Your task to perform on an android device: turn off translation in the chrome app Image 0: 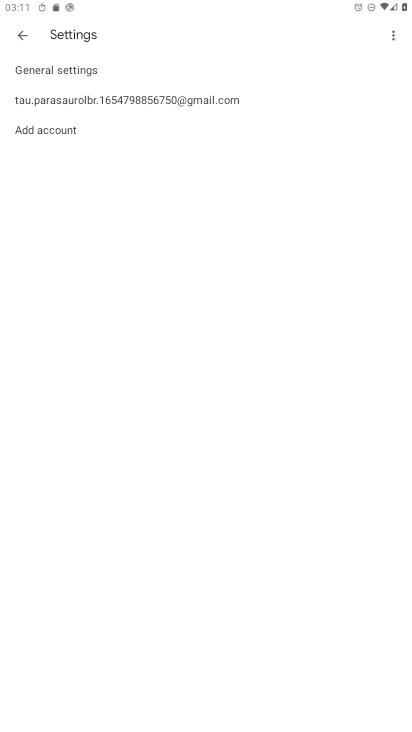
Step 0: press home button
Your task to perform on an android device: turn off translation in the chrome app Image 1: 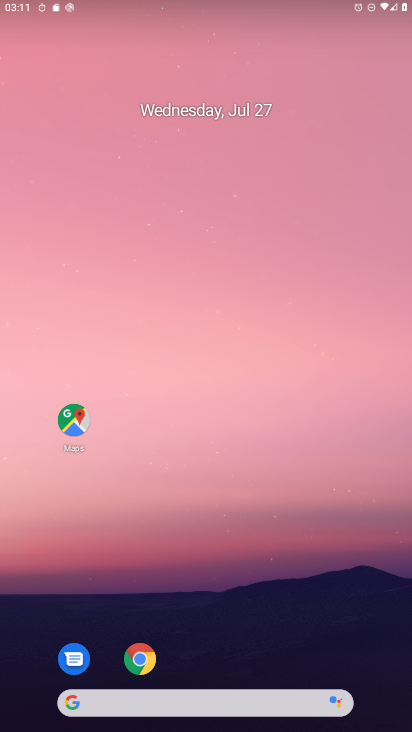
Step 1: drag from (277, 645) to (278, 89)
Your task to perform on an android device: turn off translation in the chrome app Image 2: 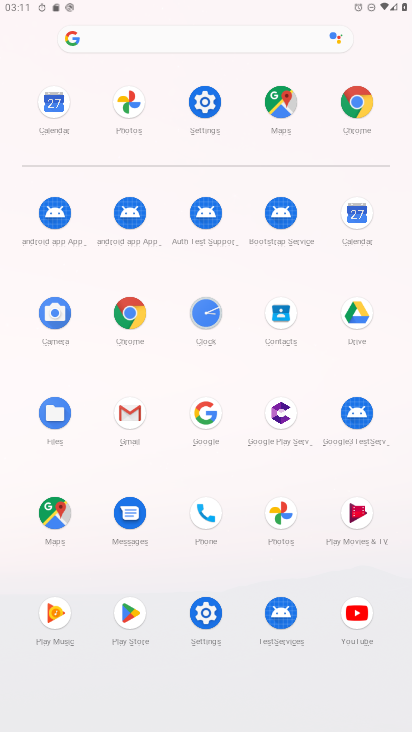
Step 2: click (127, 316)
Your task to perform on an android device: turn off translation in the chrome app Image 3: 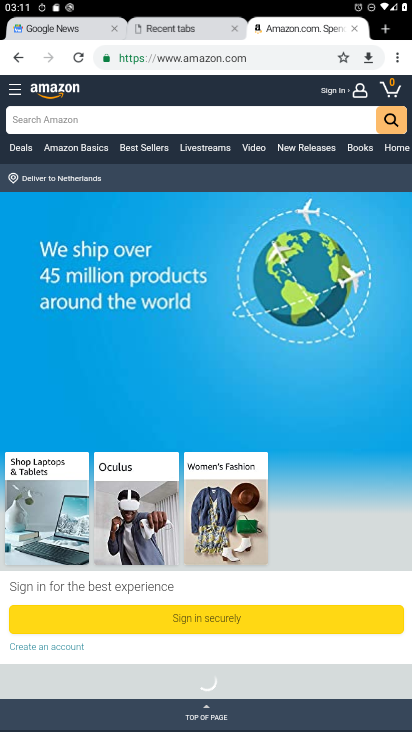
Step 3: drag from (397, 57) to (271, 384)
Your task to perform on an android device: turn off translation in the chrome app Image 4: 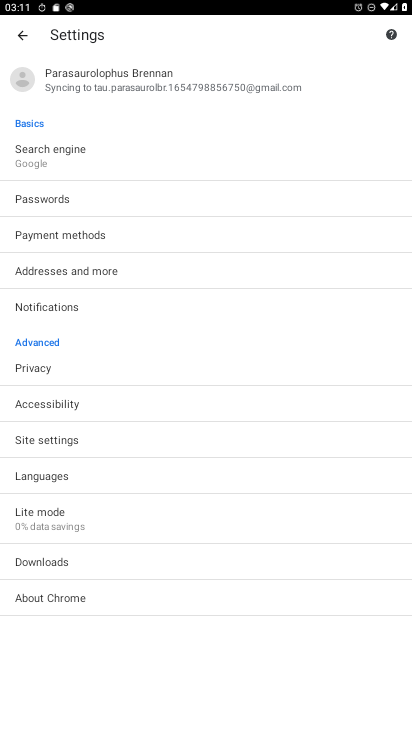
Step 4: click (53, 470)
Your task to perform on an android device: turn off translation in the chrome app Image 5: 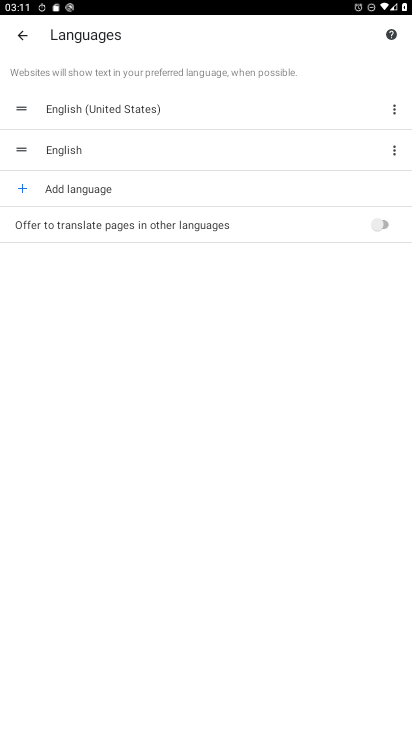
Step 5: task complete